Your task to perform on an android device: Open my contact list Image 0: 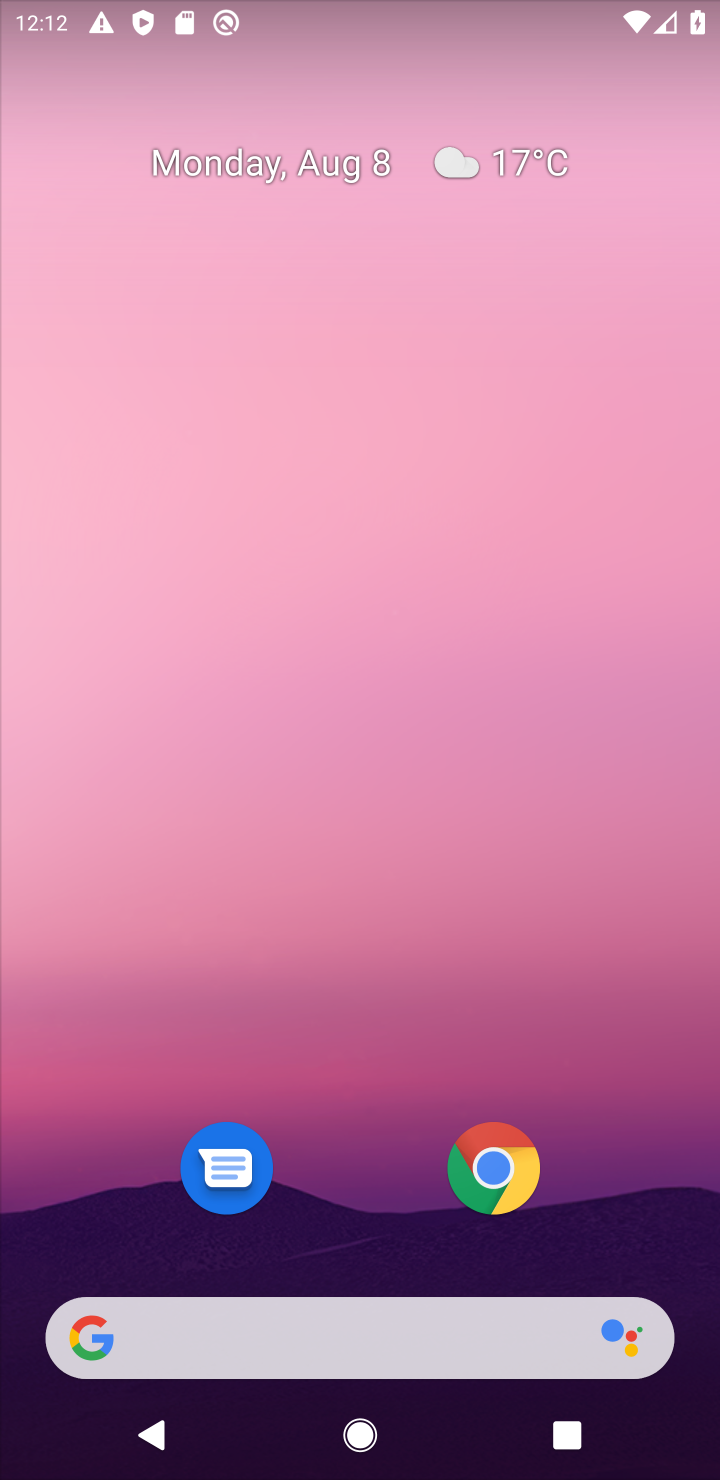
Step 0: drag from (83, 1439) to (262, 936)
Your task to perform on an android device: Open my contact list Image 1: 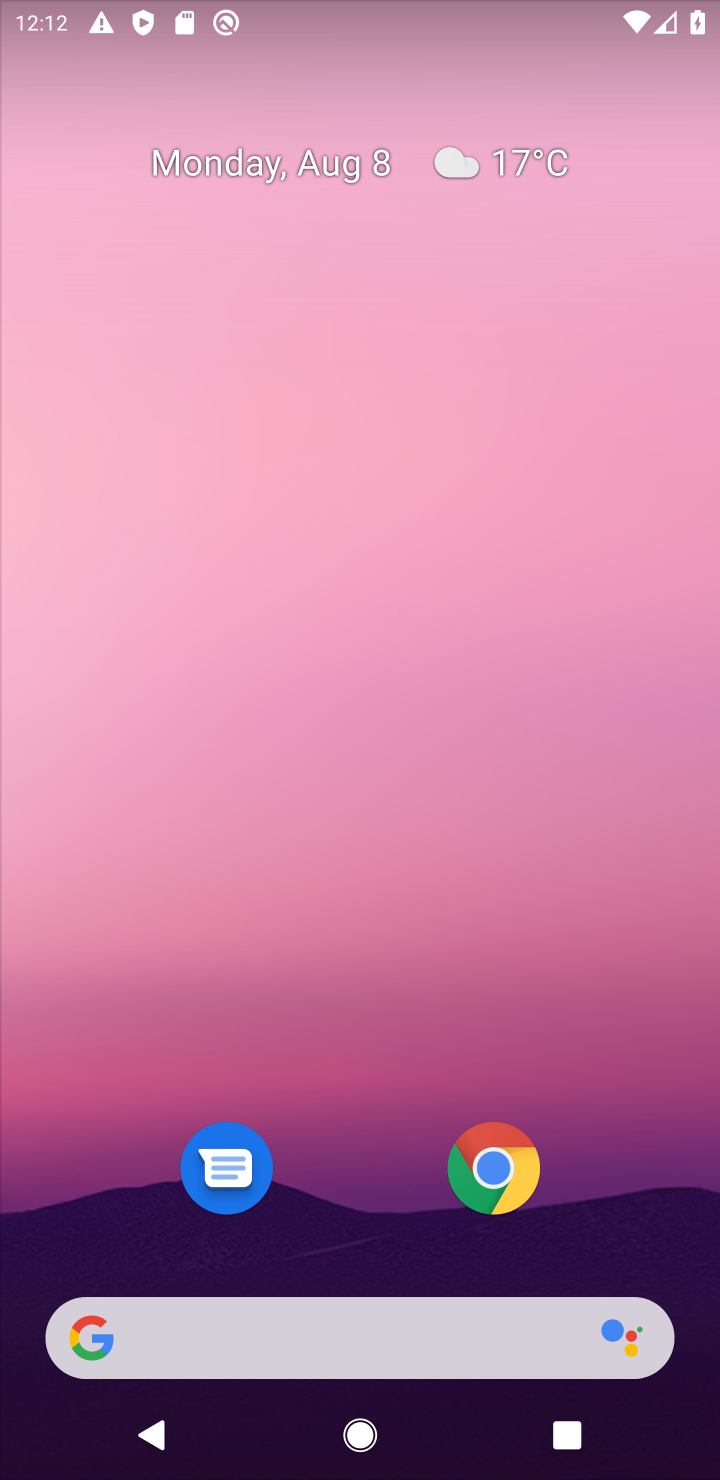
Step 1: drag from (44, 1379) to (380, 503)
Your task to perform on an android device: Open my contact list Image 2: 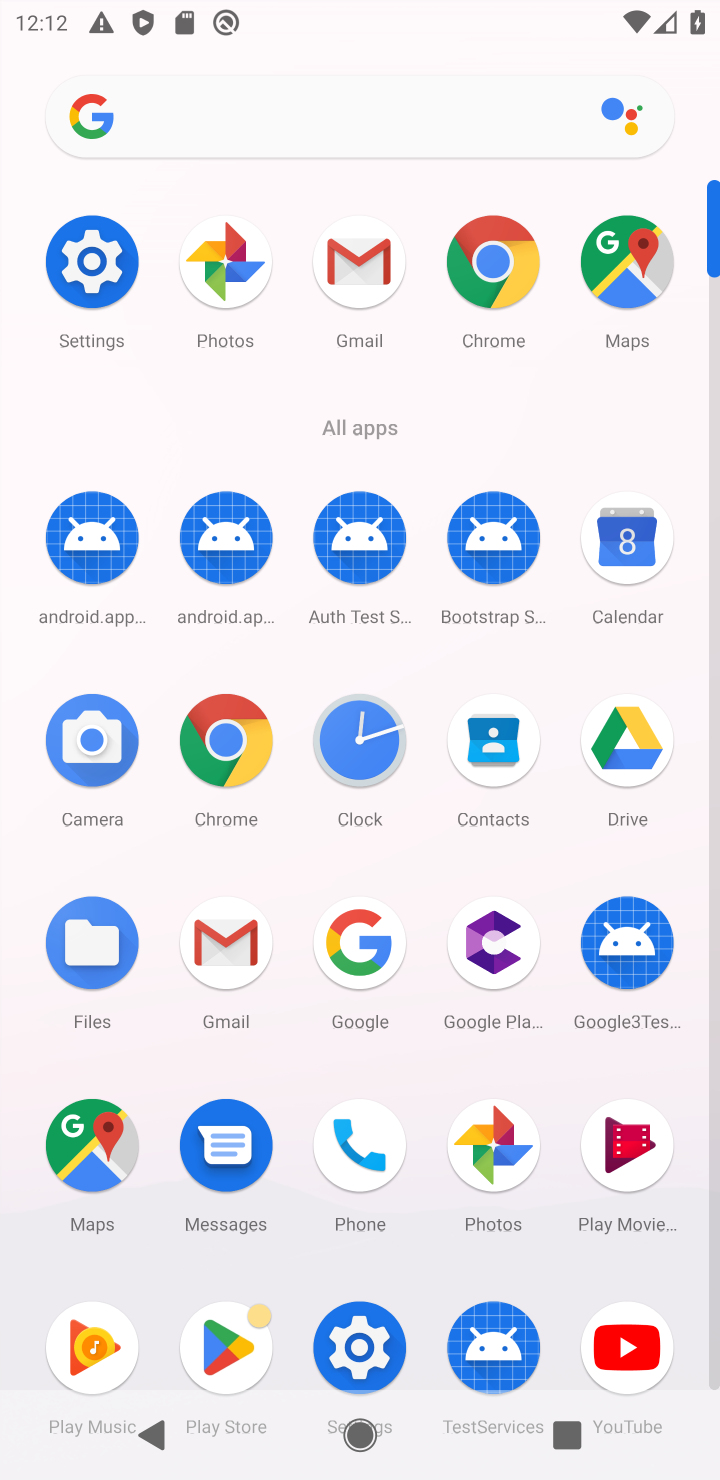
Step 2: click (353, 1157)
Your task to perform on an android device: Open my contact list Image 3: 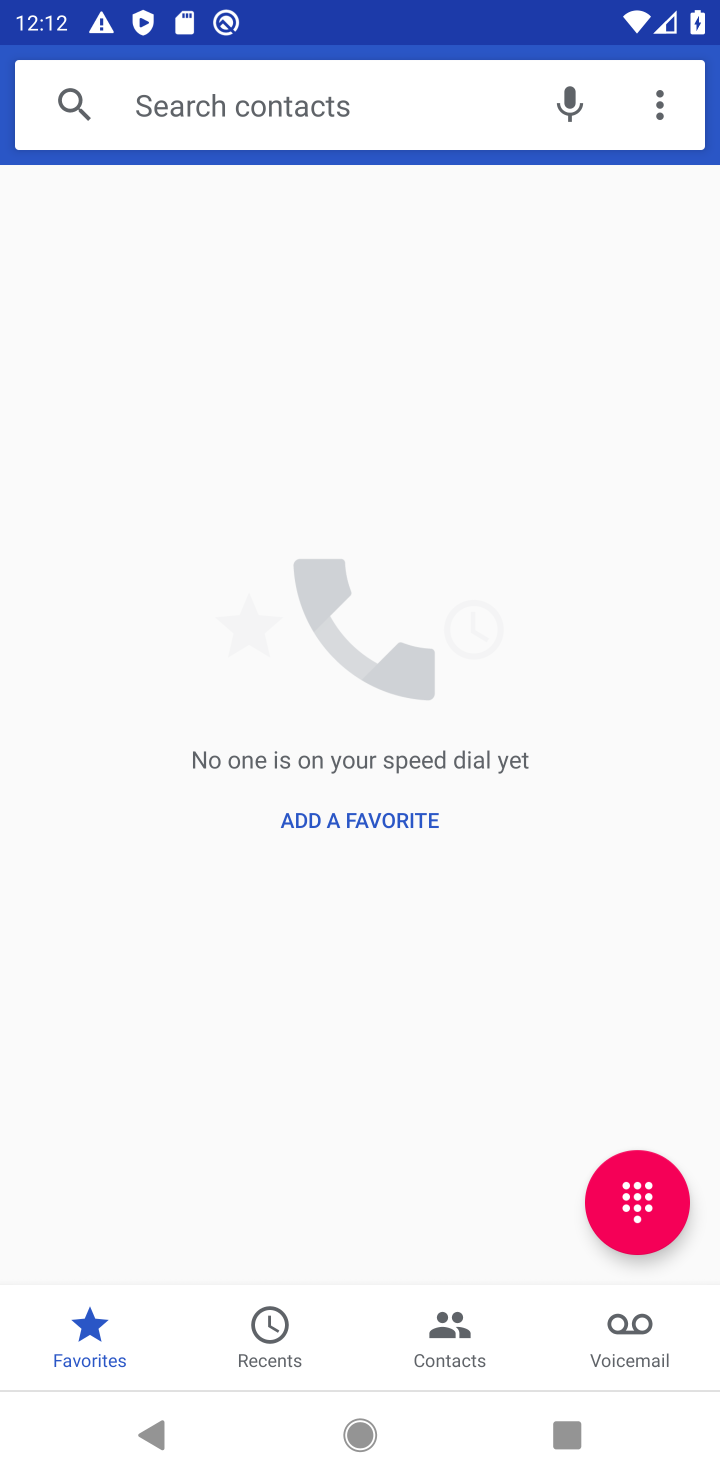
Step 3: click (436, 1326)
Your task to perform on an android device: Open my contact list Image 4: 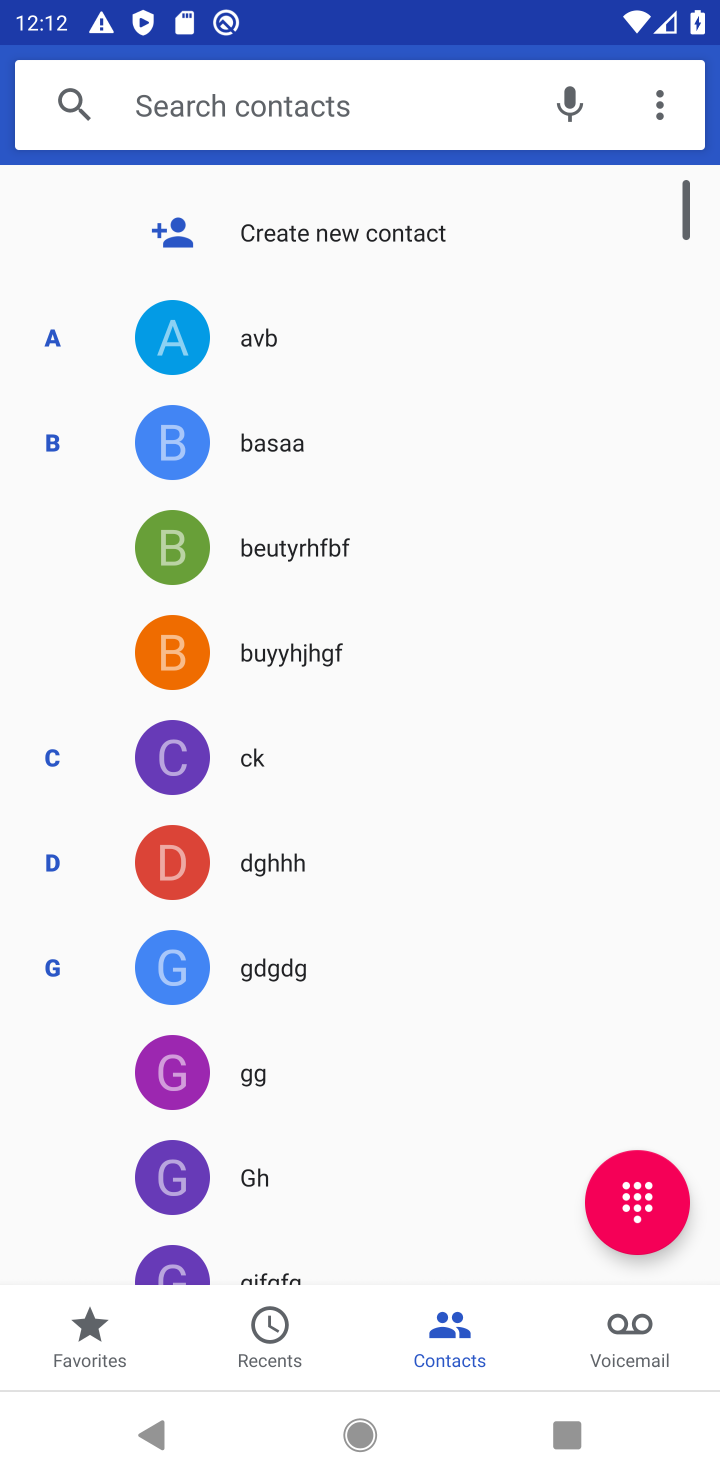
Step 4: task complete